Your task to perform on an android device: Open calendar and show me the second week of next month Image 0: 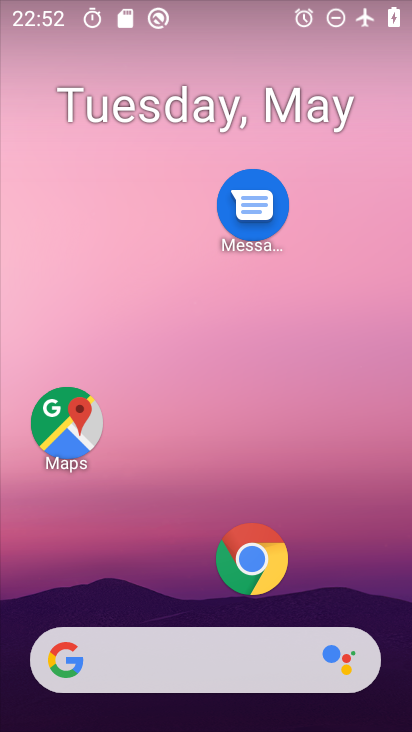
Step 0: drag from (198, 586) to (175, 157)
Your task to perform on an android device: Open calendar and show me the second week of next month Image 1: 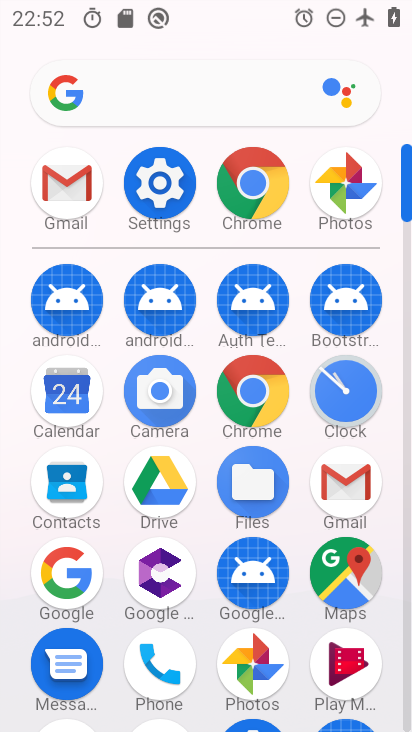
Step 1: click (85, 412)
Your task to perform on an android device: Open calendar and show me the second week of next month Image 2: 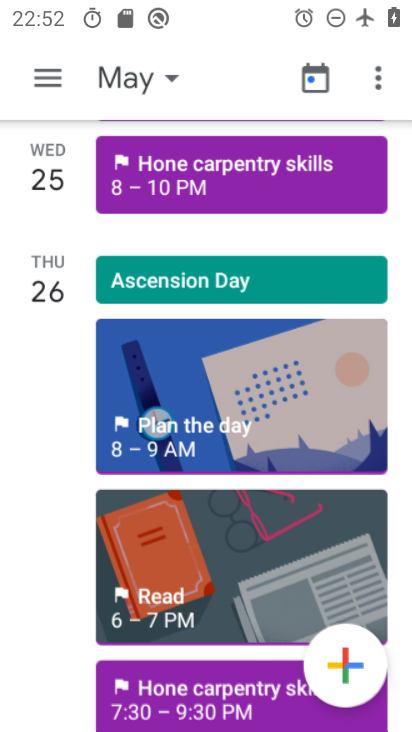
Step 2: click (168, 82)
Your task to perform on an android device: Open calendar and show me the second week of next month Image 3: 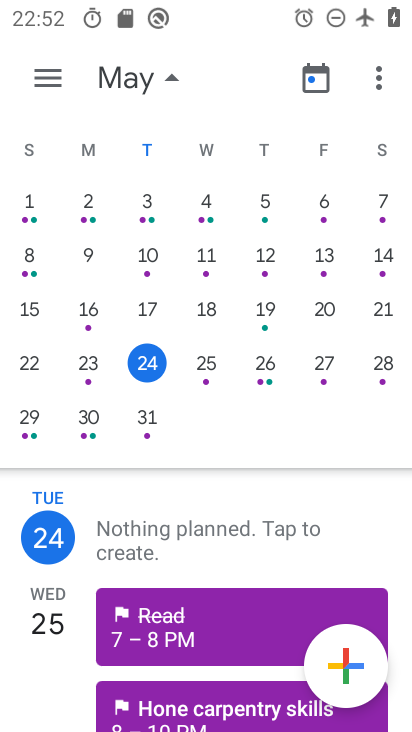
Step 3: drag from (340, 268) to (10, 275)
Your task to perform on an android device: Open calendar and show me the second week of next month Image 4: 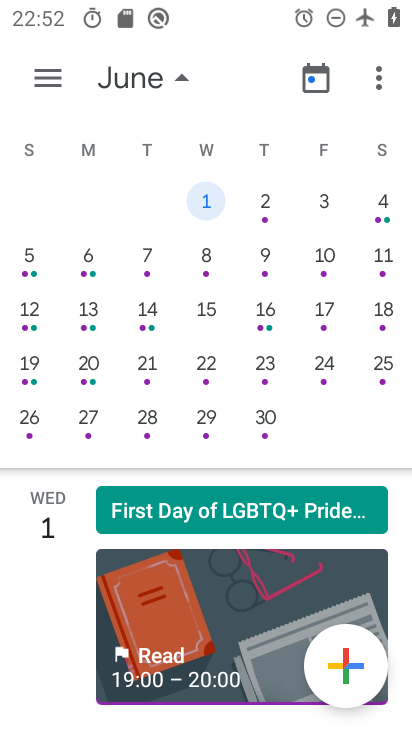
Step 4: click (34, 258)
Your task to perform on an android device: Open calendar and show me the second week of next month Image 5: 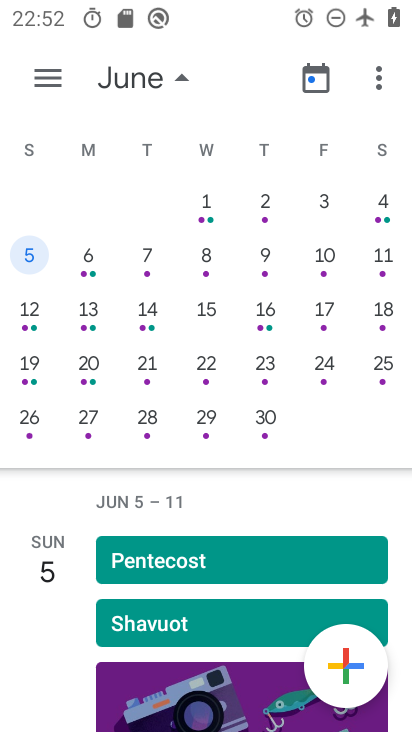
Step 5: task complete